Your task to perform on an android device: Open network settings Image 0: 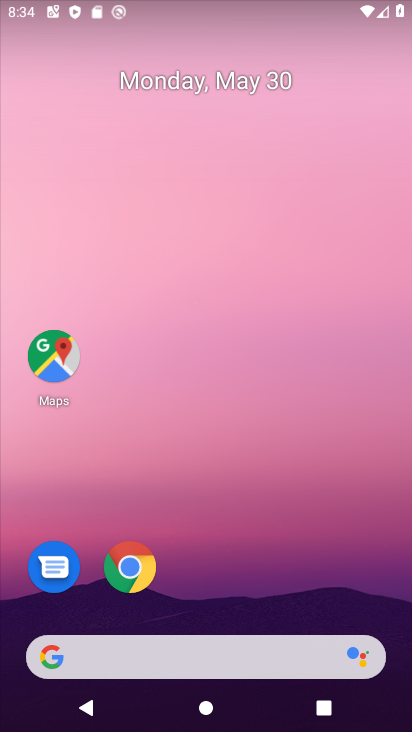
Step 0: drag from (251, 0) to (264, 510)
Your task to perform on an android device: Open network settings Image 1: 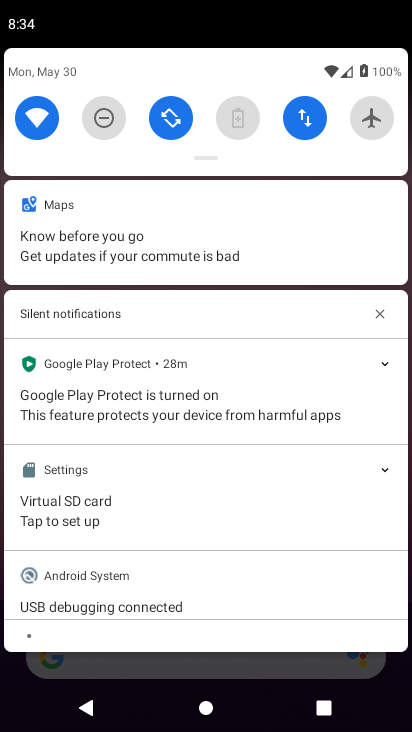
Step 1: click (295, 115)
Your task to perform on an android device: Open network settings Image 2: 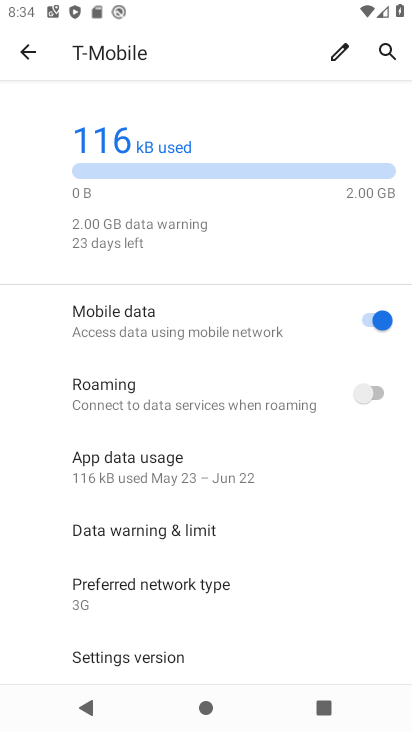
Step 2: task complete